Your task to perform on an android device: Search for pizza restaurants on Maps Image 0: 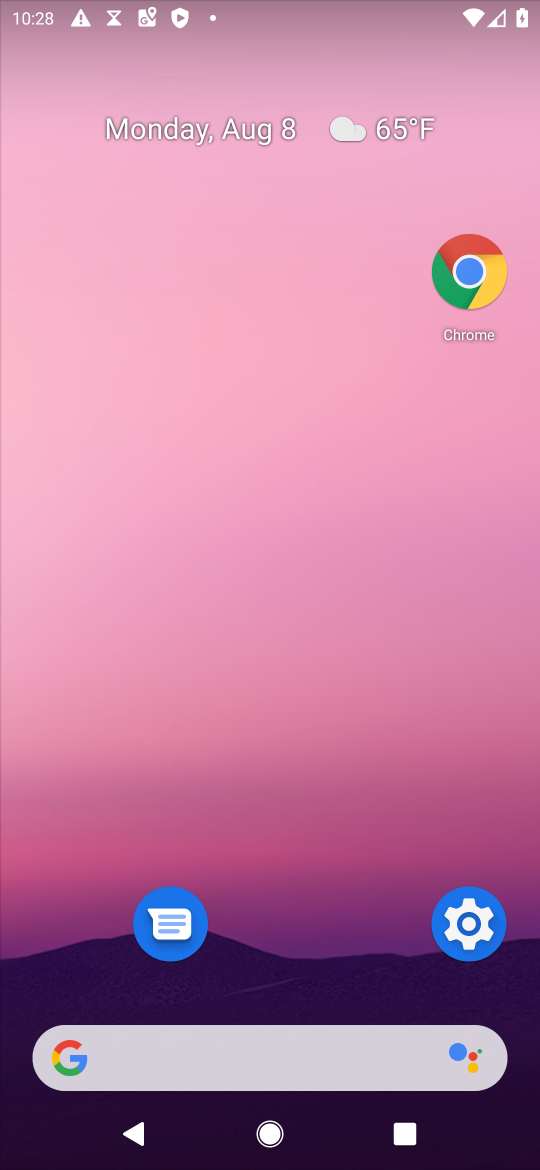
Step 0: press home button
Your task to perform on an android device: Search for pizza restaurants on Maps Image 1: 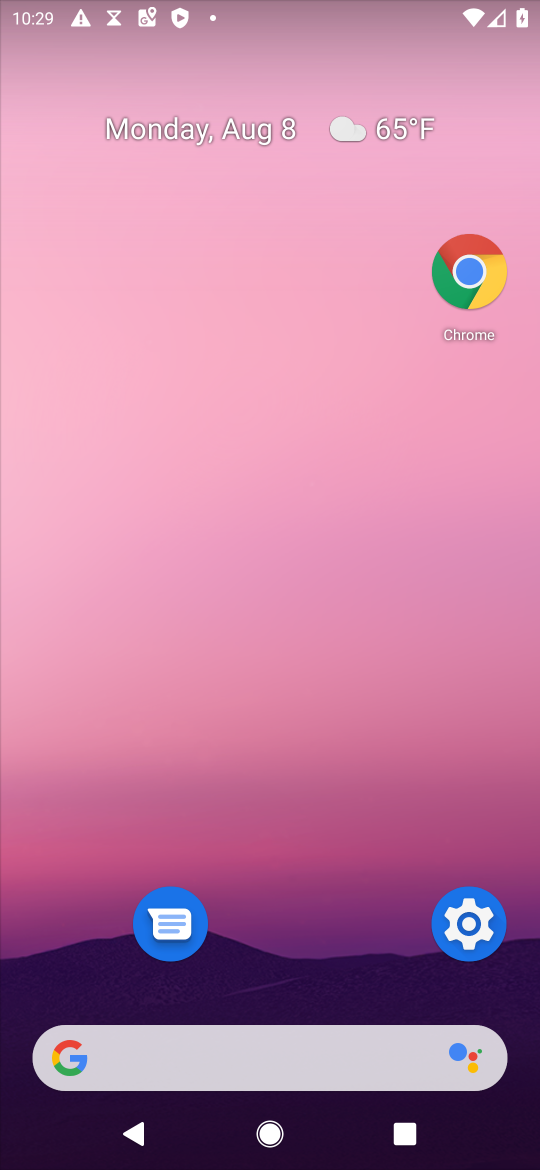
Step 1: drag from (328, 851) to (289, 182)
Your task to perform on an android device: Search for pizza restaurants on Maps Image 2: 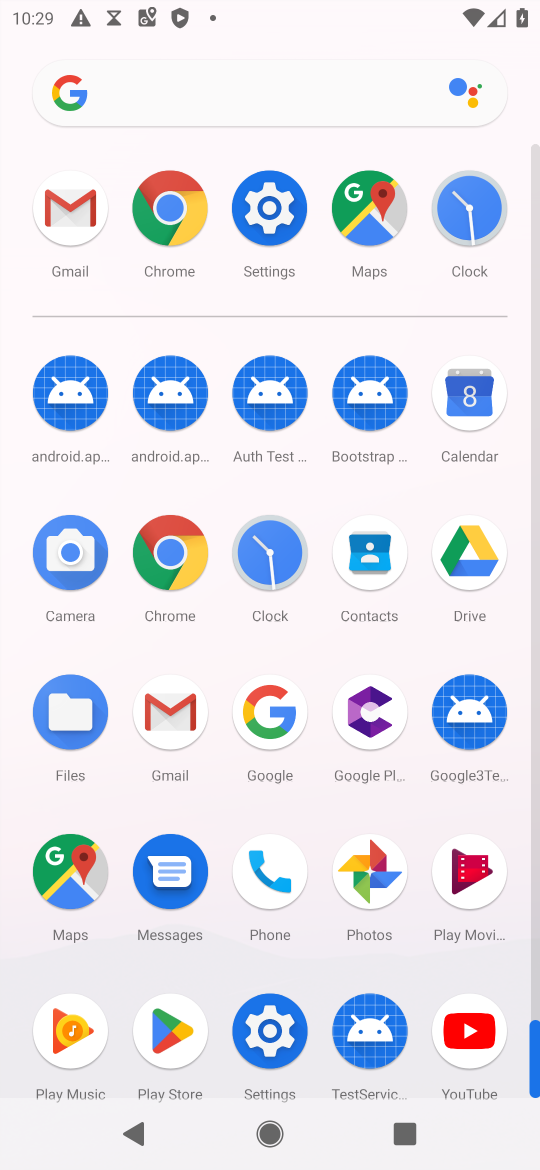
Step 2: click (356, 193)
Your task to perform on an android device: Search for pizza restaurants on Maps Image 3: 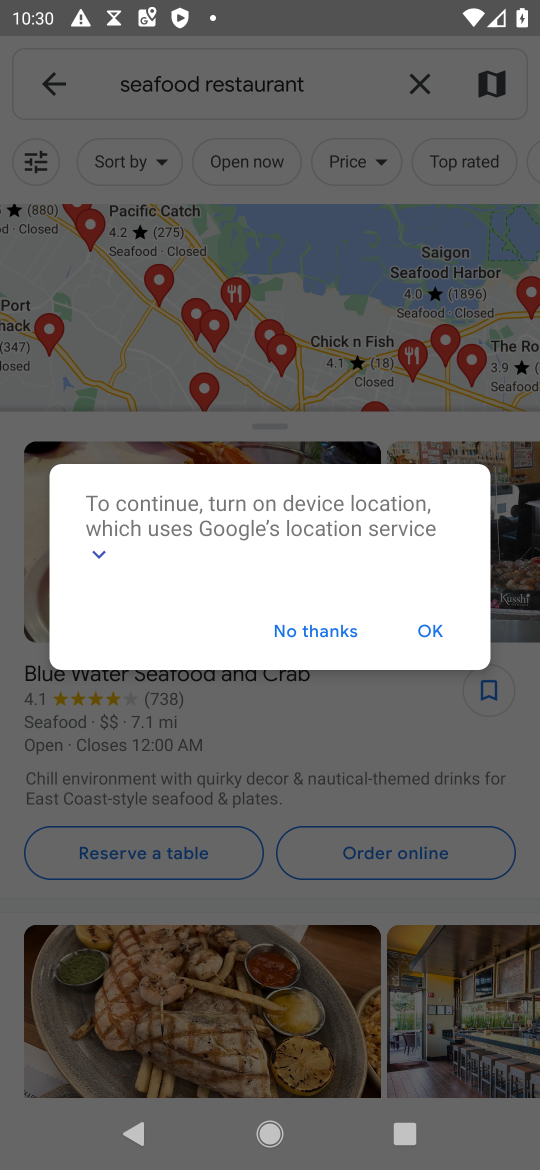
Step 3: click (320, 631)
Your task to perform on an android device: Search for pizza restaurants on Maps Image 4: 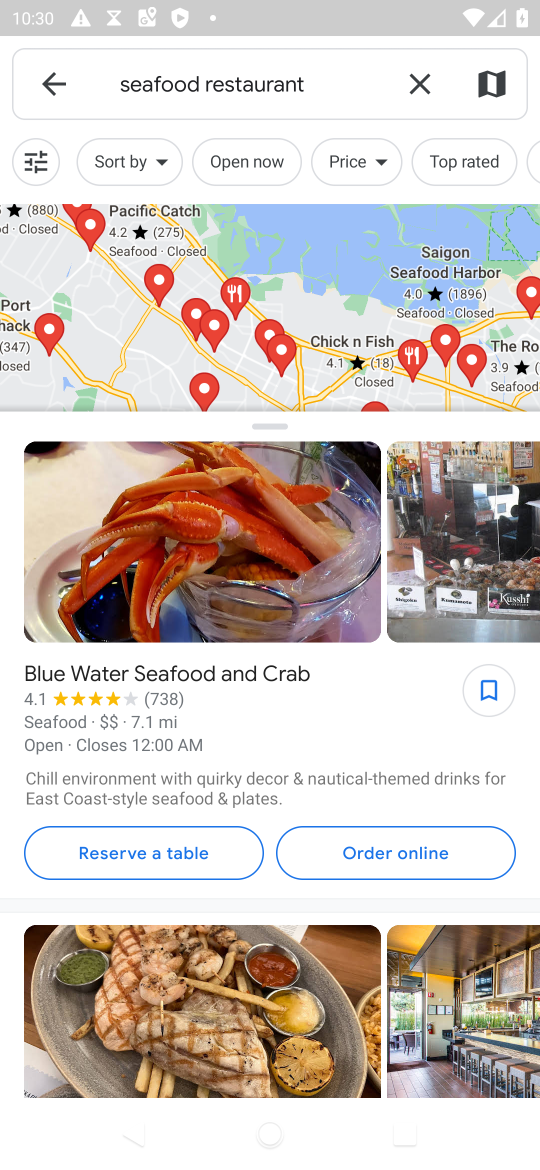
Step 4: click (426, 82)
Your task to perform on an android device: Search for pizza restaurants on Maps Image 5: 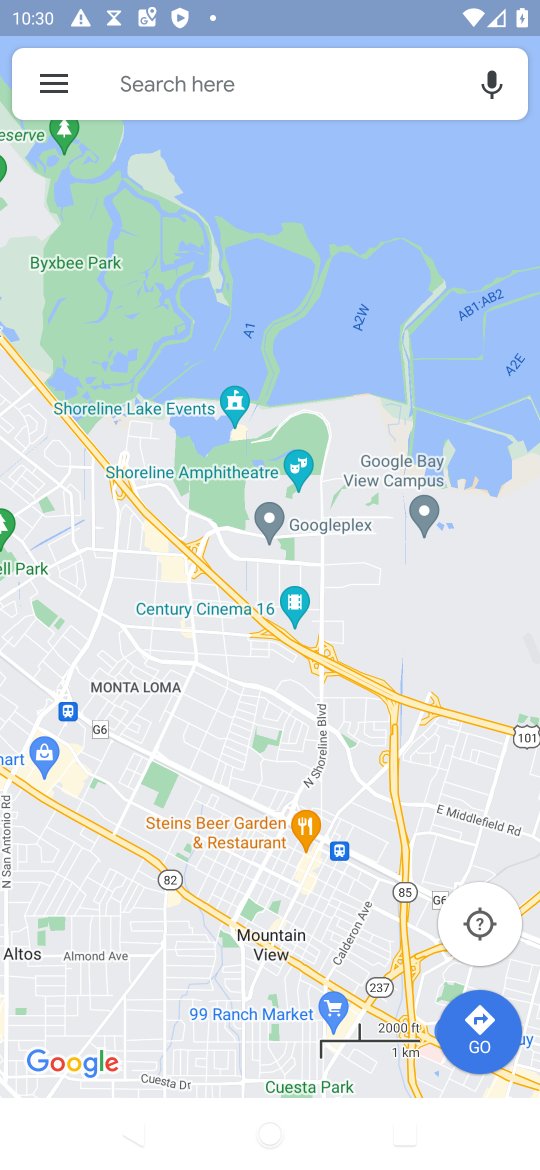
Step 5: click (318, 76)
Your task to perform on an android device: Search for pizza restaurants on Maps Image 6: 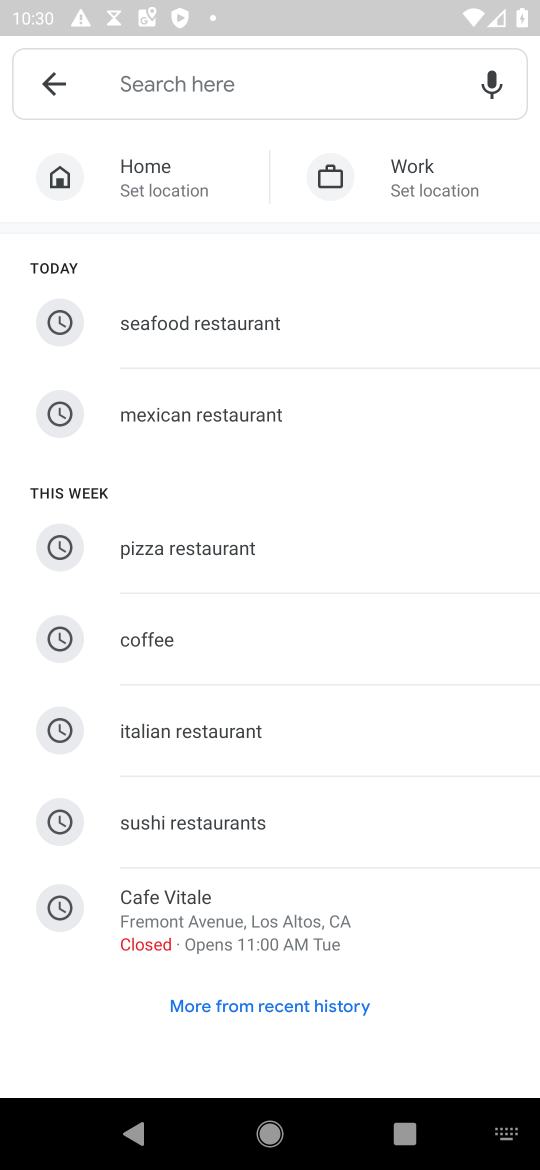
Step 6: type "pizza restaurants "
Your task to perform on an android device: Search for pizza restaurants on Maps Image 7: 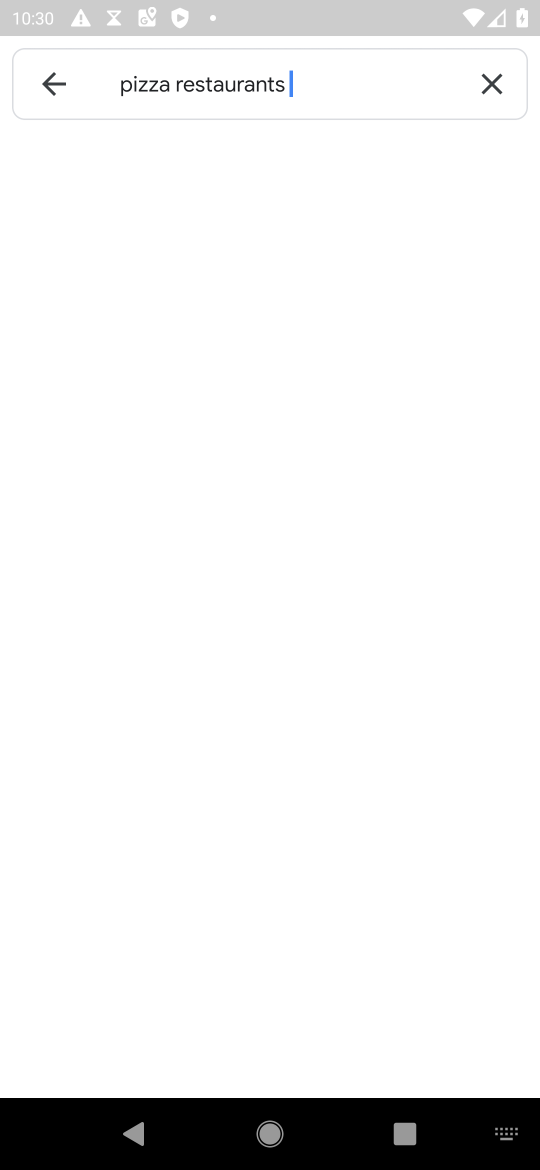
Step 7: type ""
Your task to perform on an android device: Search for pizza restaurants on Maps Image 8: 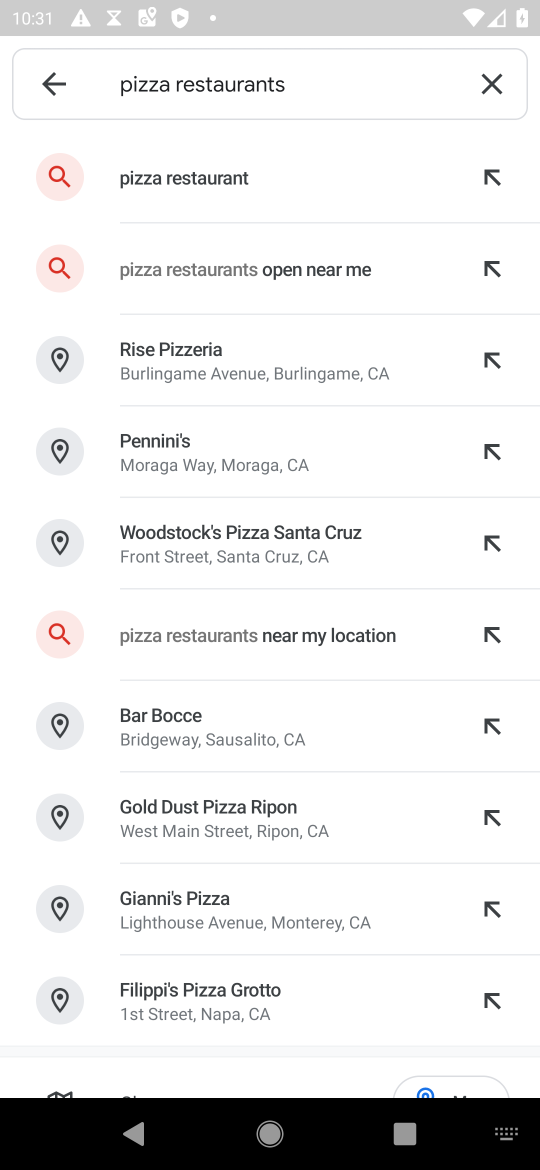
Step 8: click (187, 184)
Your task to perform on an android device: Search for pizza restaurants on Maps Image 9: 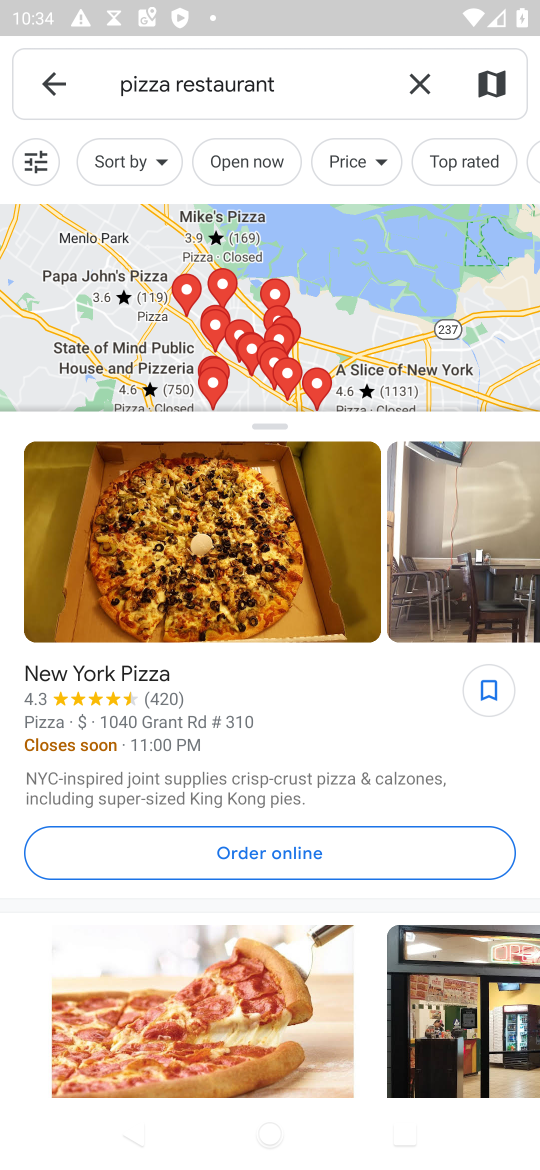
Step 9: task complete